Your task to perform on an android device: empty trash in the gmail app Image 0: 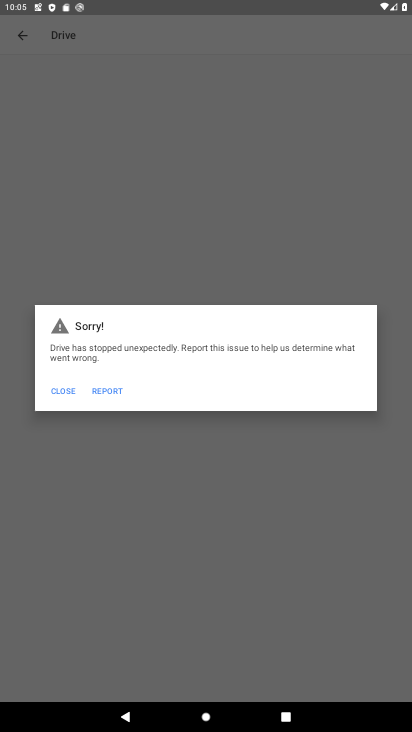
Step 0: press home button
Your task to perform on an android device: empty trash in the gmail app Image 1: 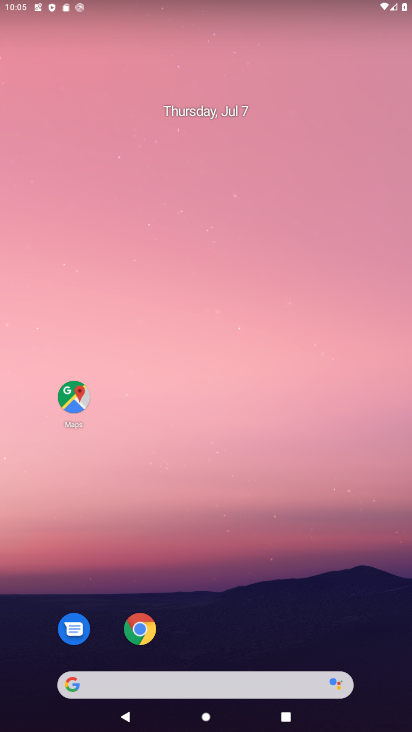
Step 1: drag from (166, 658) to (157, 20)
Your task to perform on an android device: empty trash in the gmail app Image 2: 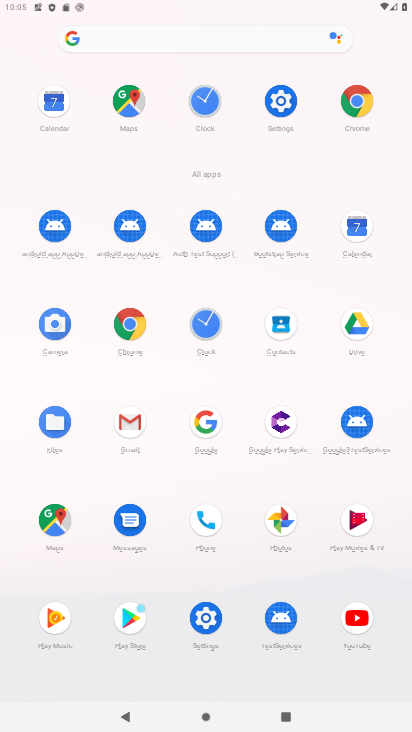
Step 2: click (146, 405)
Your task to perform on an android device: empty trash in the gmail app Image 3: 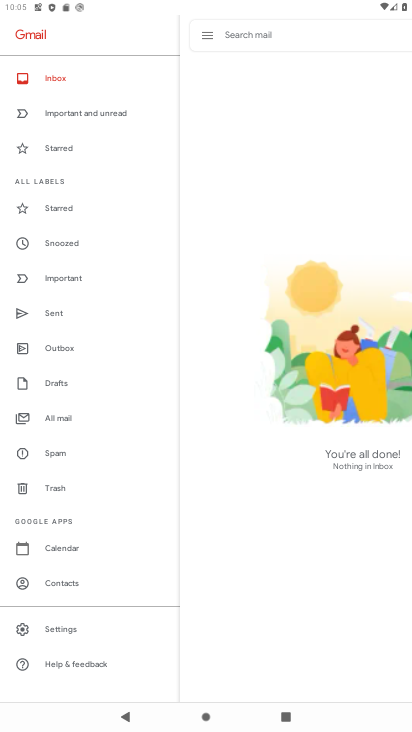
Step 3: click (55, 475)
Your task to perform on an android device: empty trash in the gmail app Image 4: 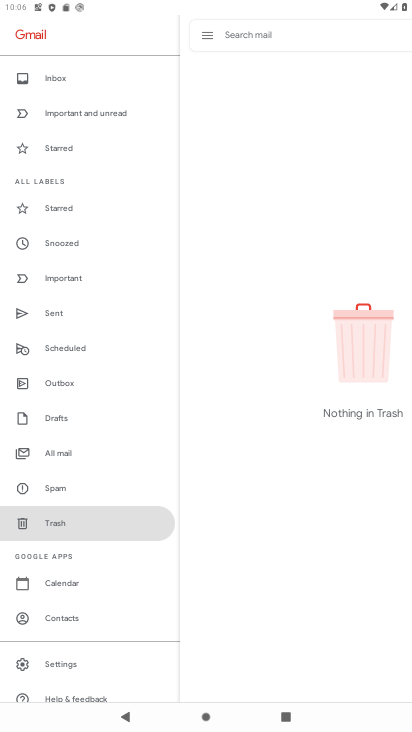
Step 4: click (55, 531)
Your task to perform on an android device: empty trash in the gmail app Image 5: 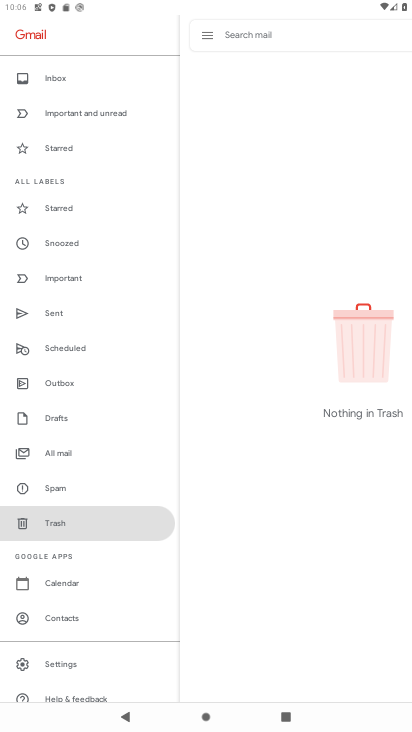
Step 5: click (70, 534)
Your task to perform on an android device: empty trash in the gmail app Image 6: 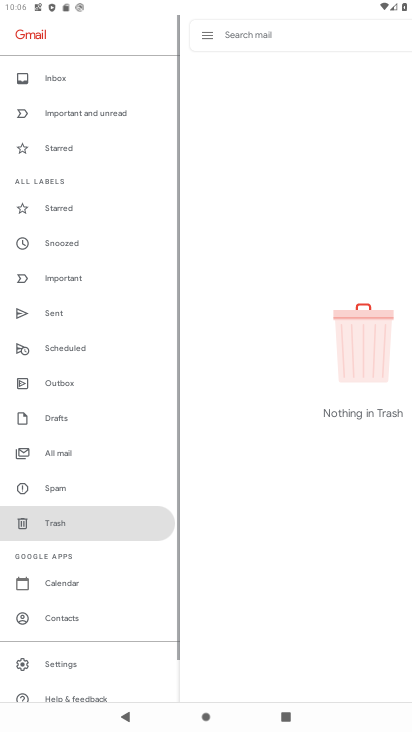
Step 6: click (258, 254)
Your task to perform on an android device: empty trash in the gmail app Image 7: 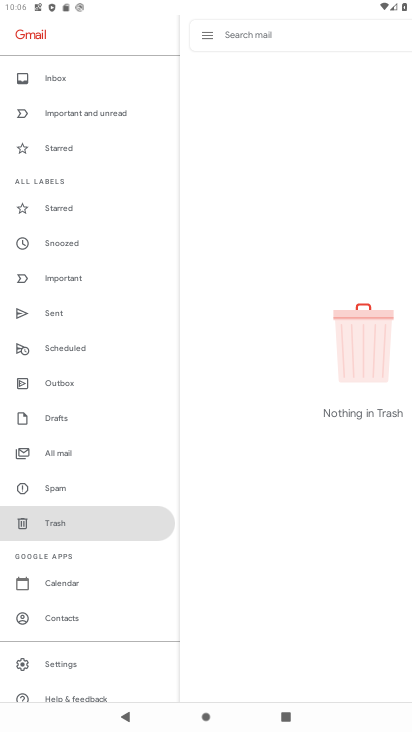
Step 7: task complete